Your task to perform on an android device: Go to Maps Image 0: 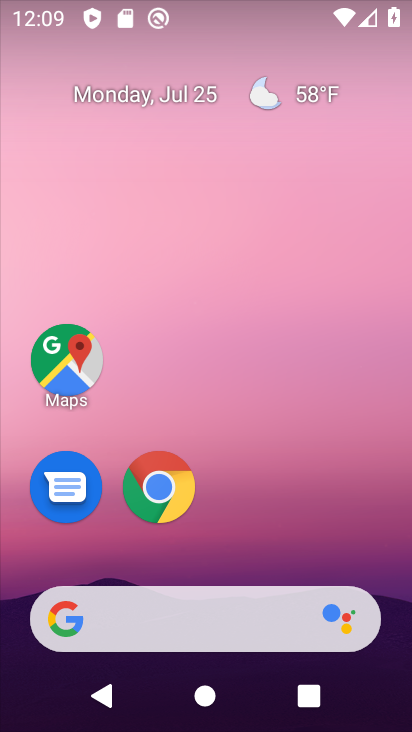
Step 0: click (51, 355)
Your task to perform on an android device: Go to Maps Image 1: 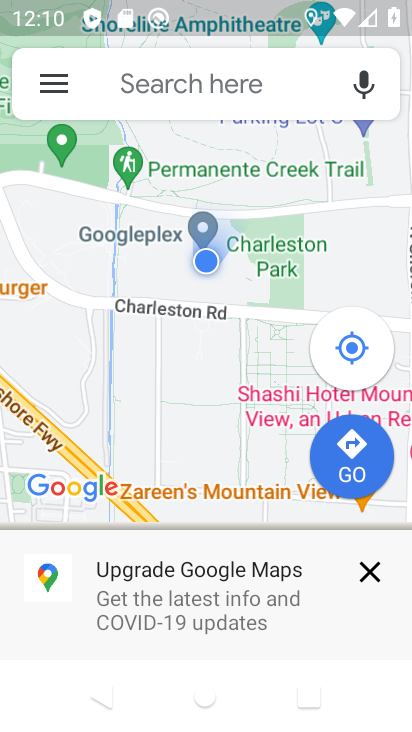
Step 1: task complete